Your task to perform on an android device: open chrome privacy settings Image 0: 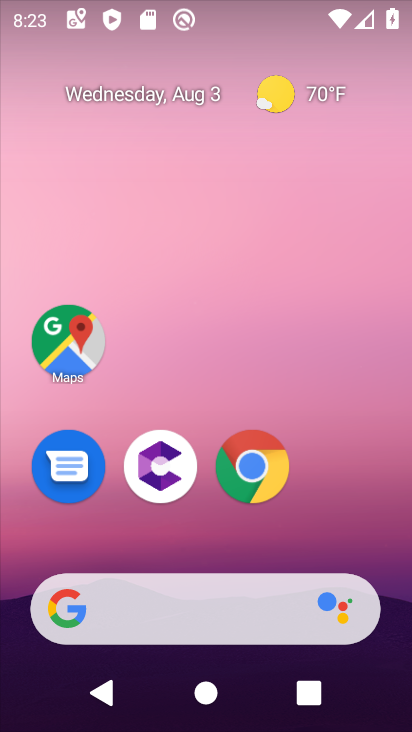
Step 0: drag from (355, 486) to (361, 96)
Your task to perform on an android device: open chrome privacy settings Image 1: 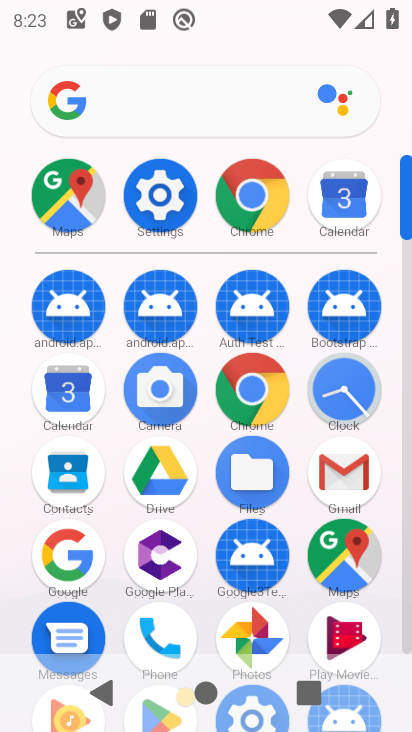
Step 1: click (249, 388)
Your task to perform on an android device: open chrome privacy settings Image 2: 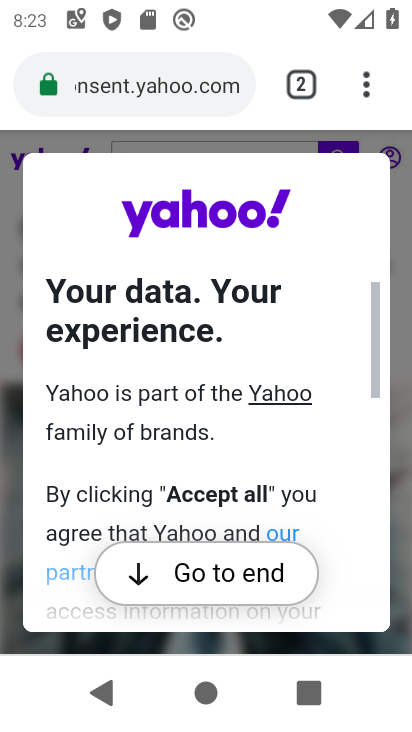
Step 2: drag from (378, 81) to (98, 527)
Your task to perform on an android device: open chrome privacy settings Image 3: 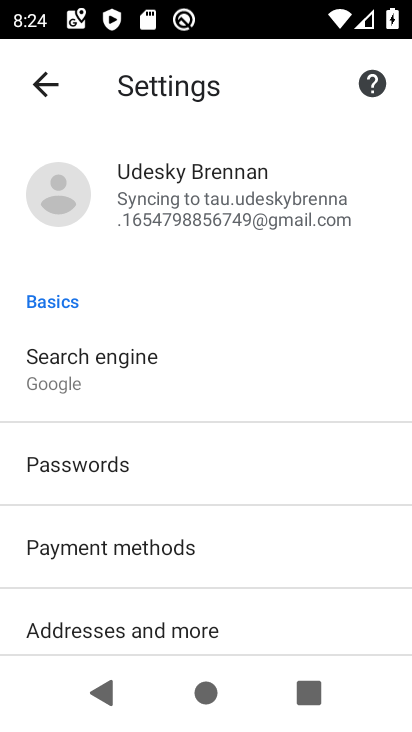
Step 3: drag from (318, 530) to (348, 70)
Your task to perform on an android device: open chrome privacy settings Image 4: 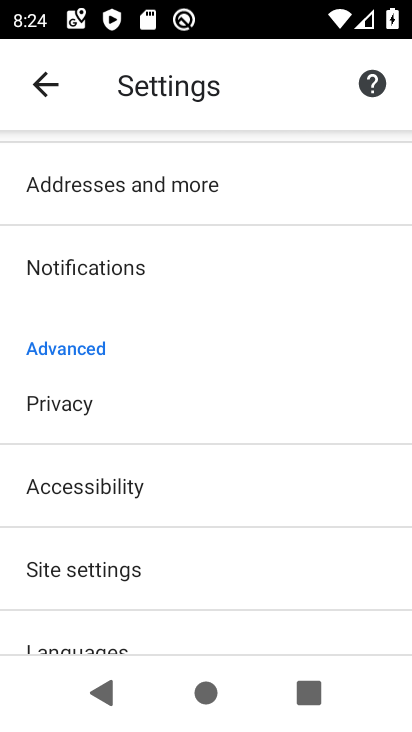
Step 4: drag from (305, 535) to (319, 184)
Your task to perform on an android device: open chrome privacy settings Image 5: 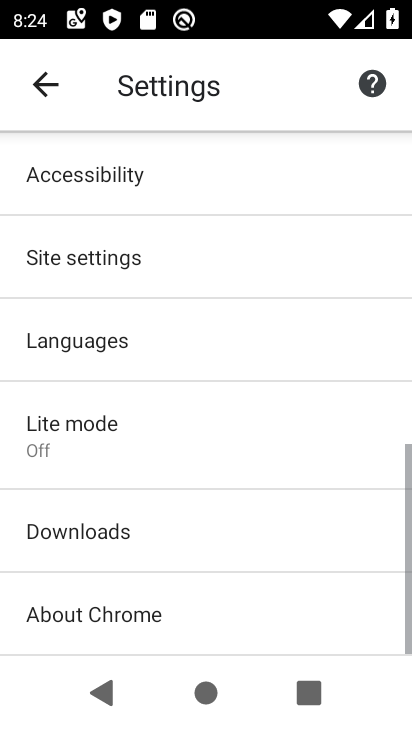
Step 5: drag from (252, 471) to (299, 280)
Your task to perform on an android device: open chrome privacy settings Image 6: 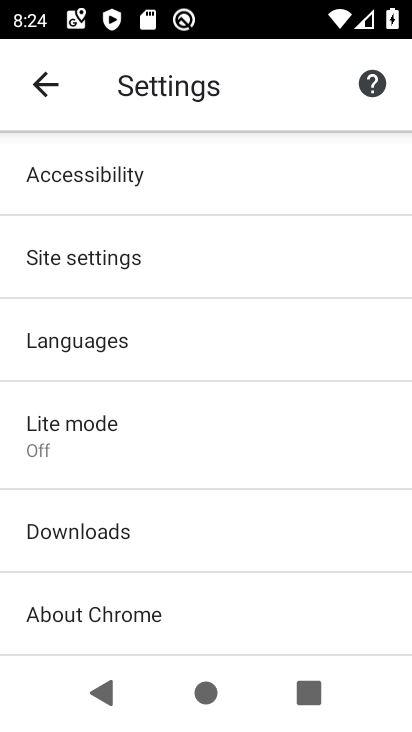
Step 6: drag from (341, 202) to (294, 430)
Your task to perform on an android device: open chrome privacy settings Image 7: 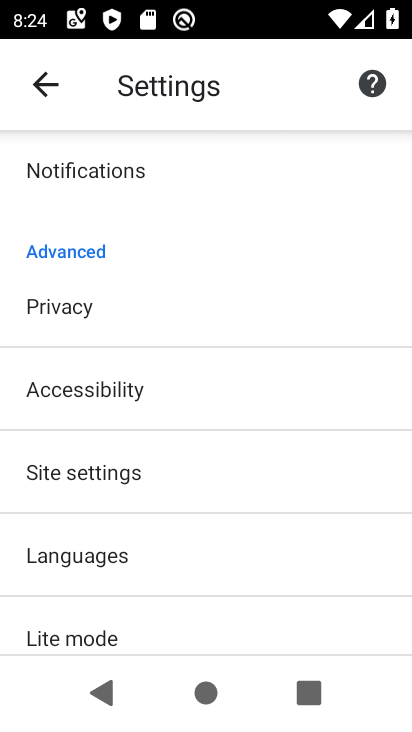
Step 7: click (81, 303)
Your task to perform on an android device: open chrome privacy settings Image 8: 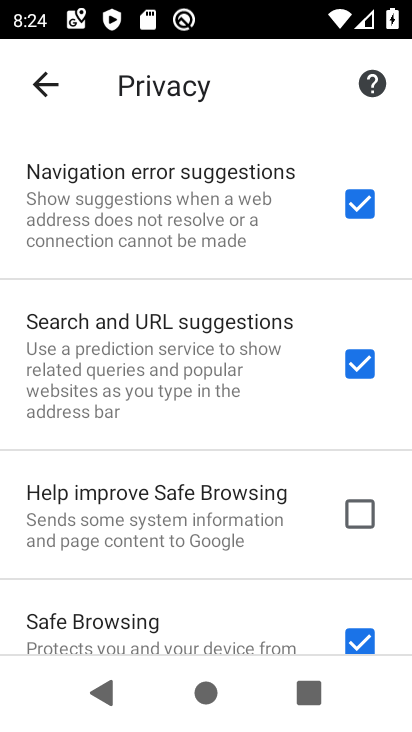
Step 8: task complete